Your task to perform on an android device: Go to Google Image 0: 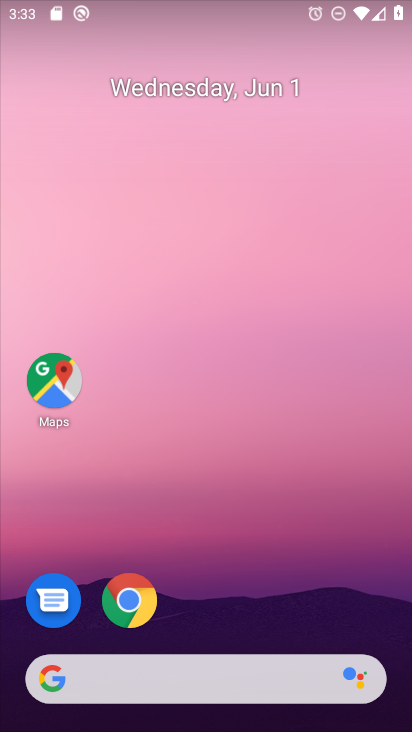
Step 0: click (222, 692)
Your task to perform on an android device: Go to Google Image 1: 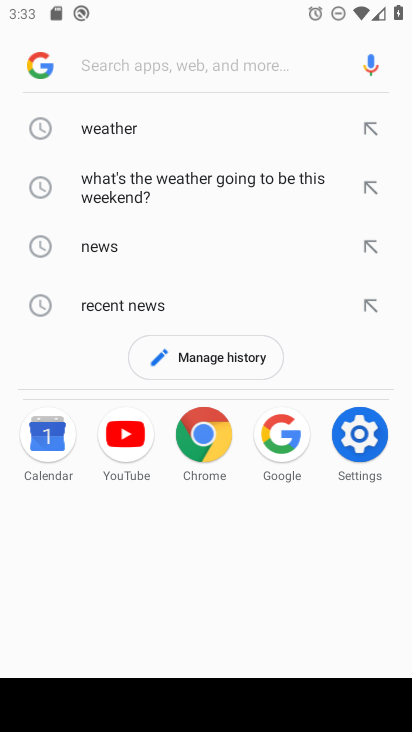
Step 1: task complete